Your task to perform on an android device: Go to notification settings Image 0: 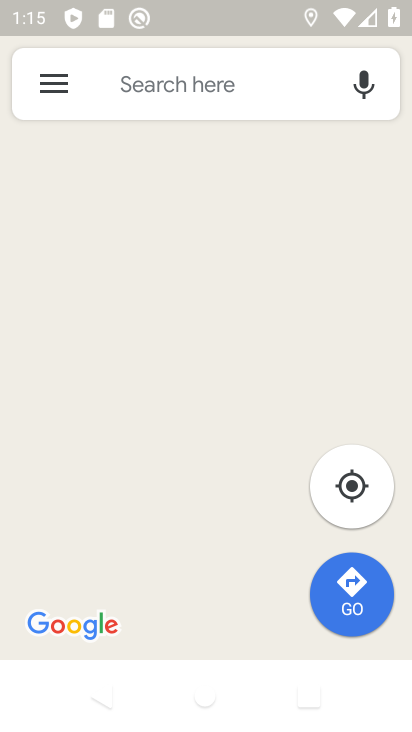
Step 0: drag from (234, 720) to (235, 136)
Your task to perform on an android device: Go to notification settings Image 1: 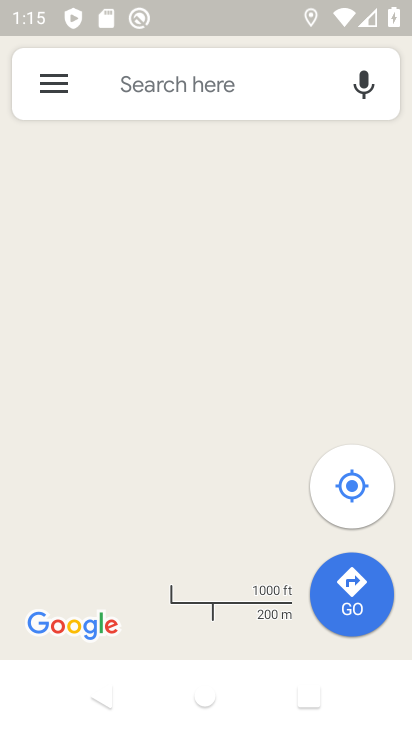
Step 1: press home button
Your task to perform on an android device: Go to notification settings Image 2: 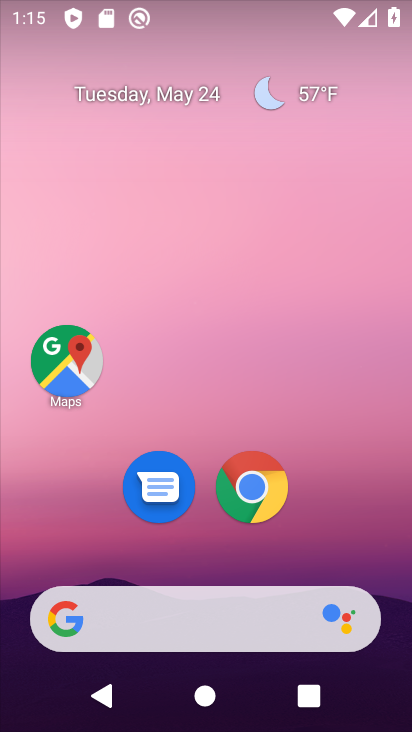
Step 2: drag from (221, 728) to (212, 97)
Your task to perform on an android device: Go to notification settings Image 3: 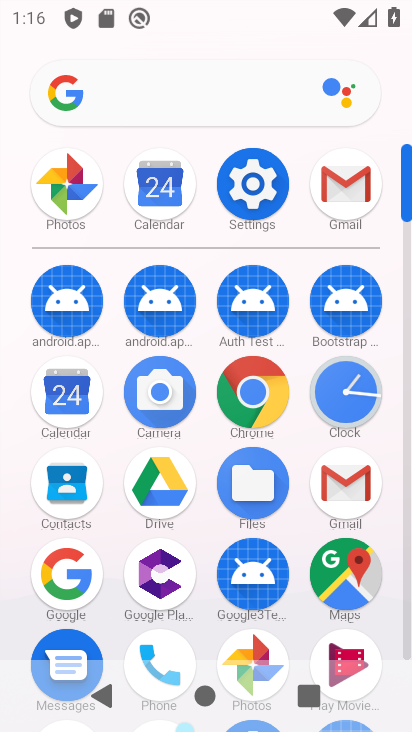
Step 3: click (249, 186)
Your task to perform on an android device: Go to notification settings Image 4: 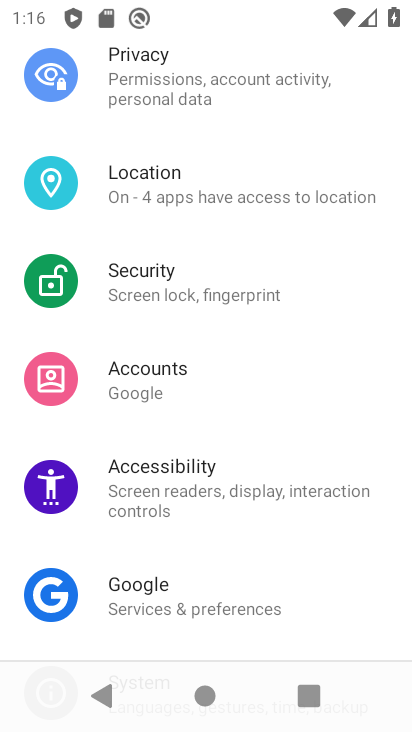
Step 4: drag from (251, 166) to (269, 582)
Your task to perform on an android device: Go to notification settings Image 5: 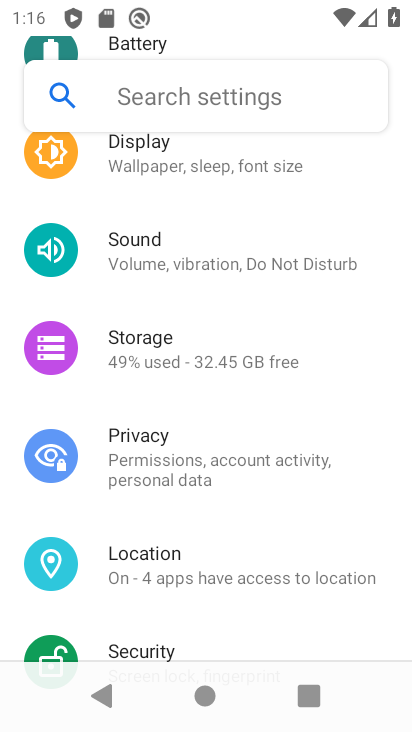
Step 5: drag from (245, 132) to (282, 549)
Your task to perform on an android device: Go to notification settings Image 6: 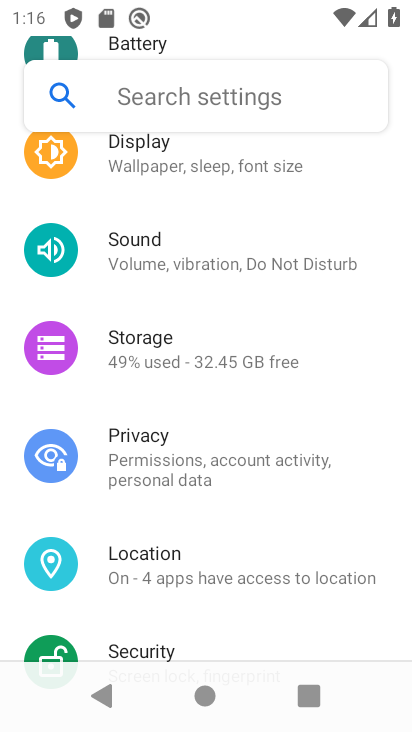
Step 6: drag from (249, 247) to (234, 508)
Your task to perform on an android device: Go to notification settings Image 7: 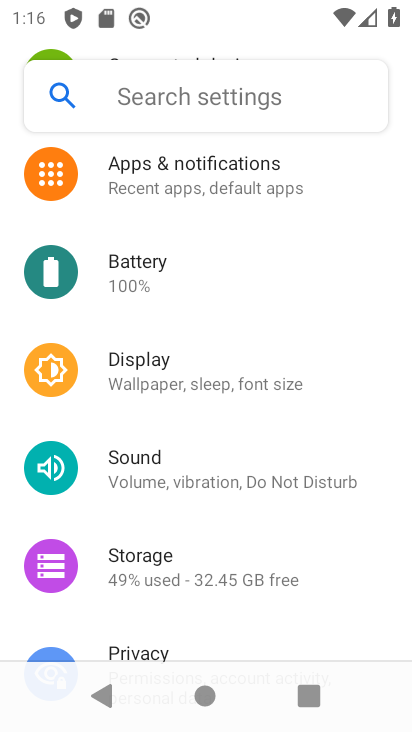
Step 7: click (160, 178)
Your task to perform on an android device: Go to notification settings Image 8: 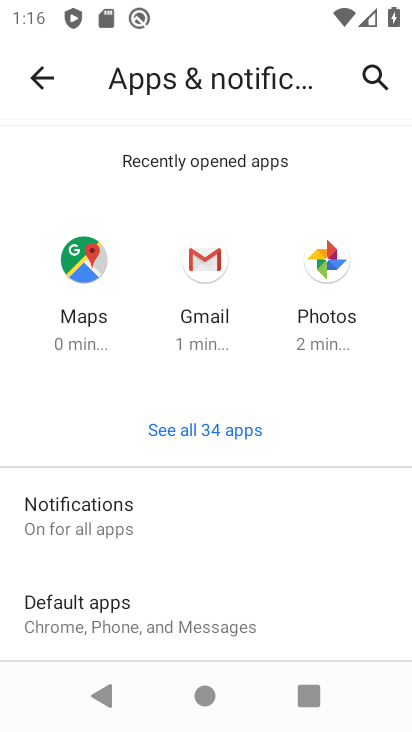
Step 8: click (98, 529)
Your task to perform on an android device: Go to notification settings Image 9: 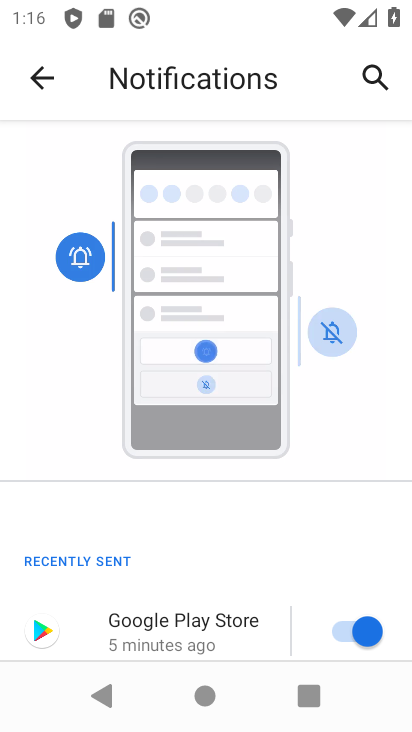
Step 9: task complete